Your task to perform on an android device: Go to Maps Image 0: 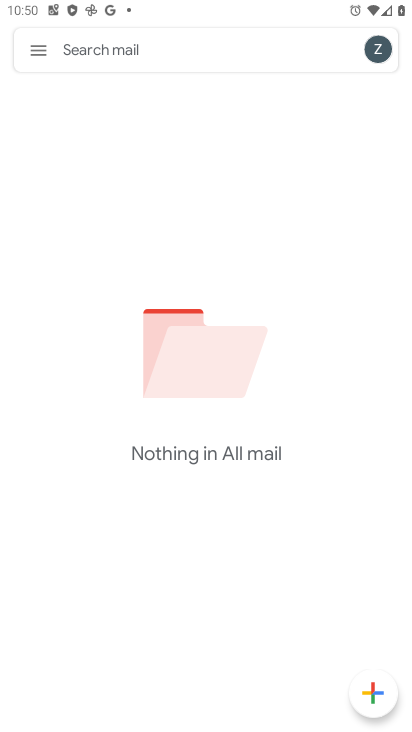
Step 0: press home button
Your task to perform on an android device: Go to Maps Image 1: 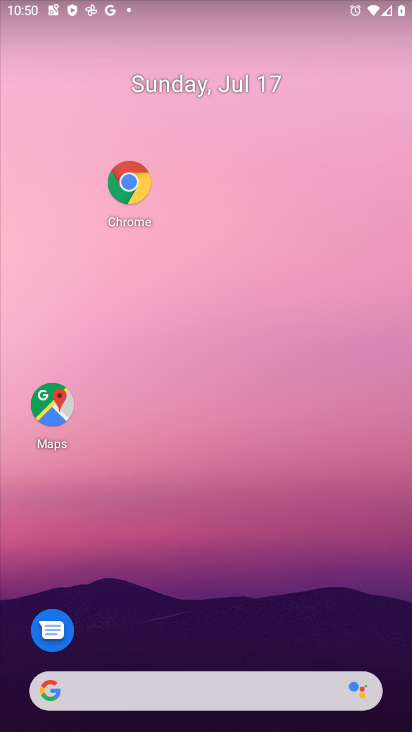
Step 1: click (52, 415)
Your task to perform on an android device: Go to Maps Image 2: 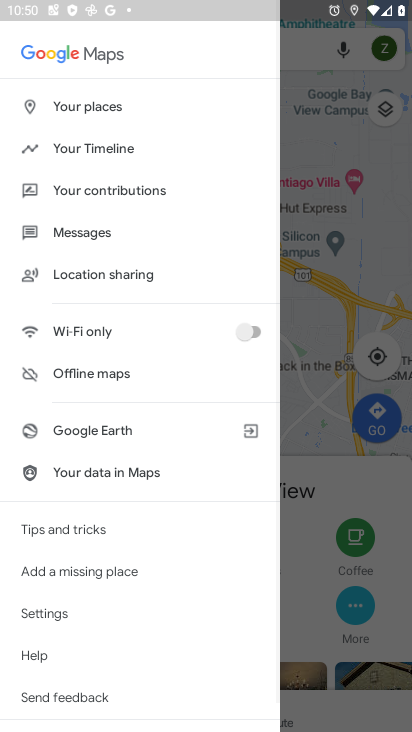
Step 2: task complete